Your task to perform on an android device: Open Maps and search for coffee Image 0: 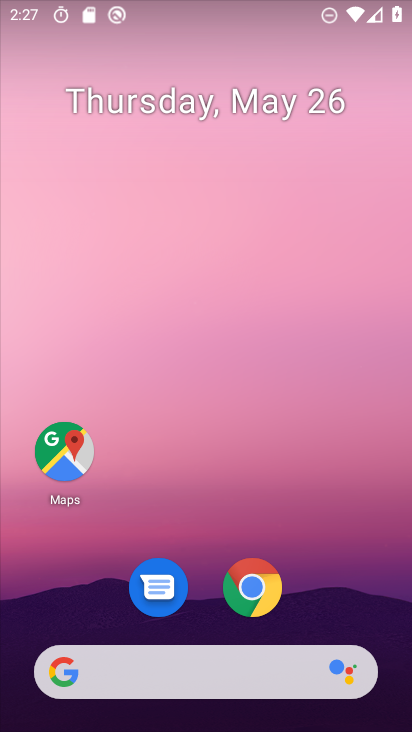
Step 0: click (62, 455)
Your task to perform on an android device: Open Maps and search for coffee Image 1: 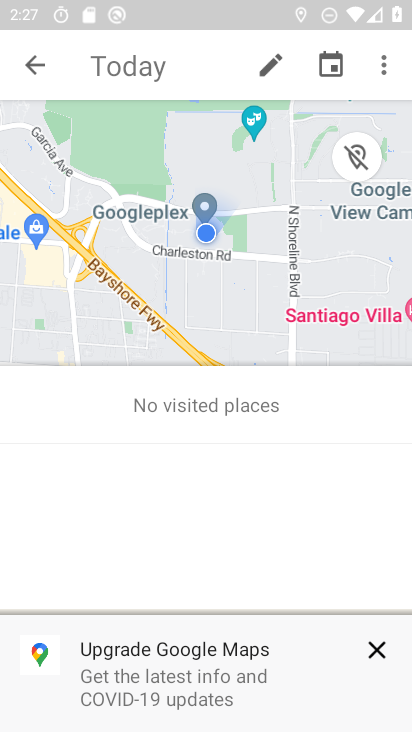
Step 1: click (38, 65)
Your task to perform on an android device: Open Maps and search for coffee Image 2: 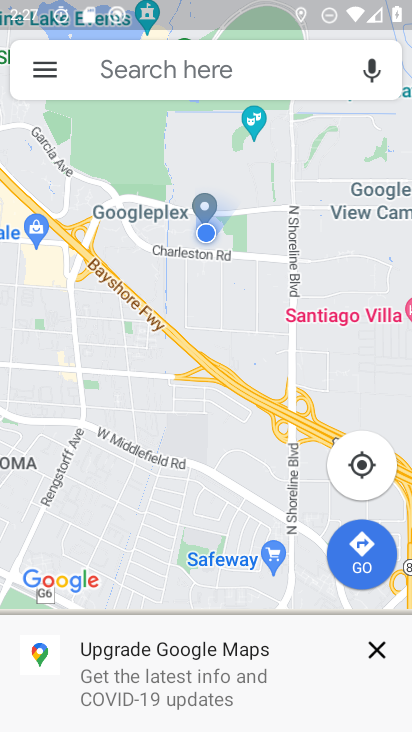
Step 2: click (156, 81)
Your task to perform on an android device: Open Maps and search for coffee Image 3: 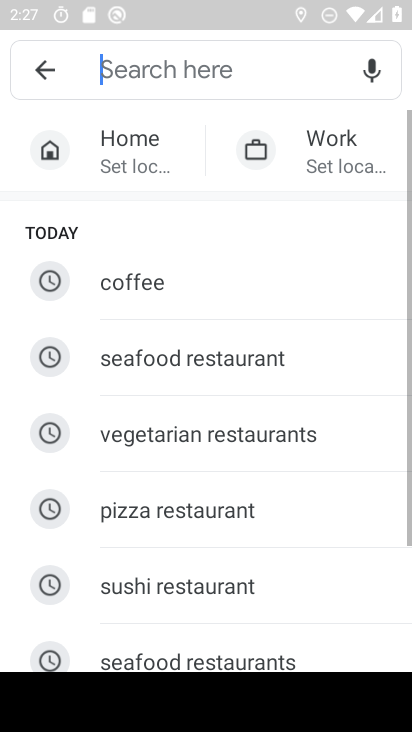
Step 3: click (120, 284)
Your task to perform on an android device: Open Maps and search for coffee Image 4: 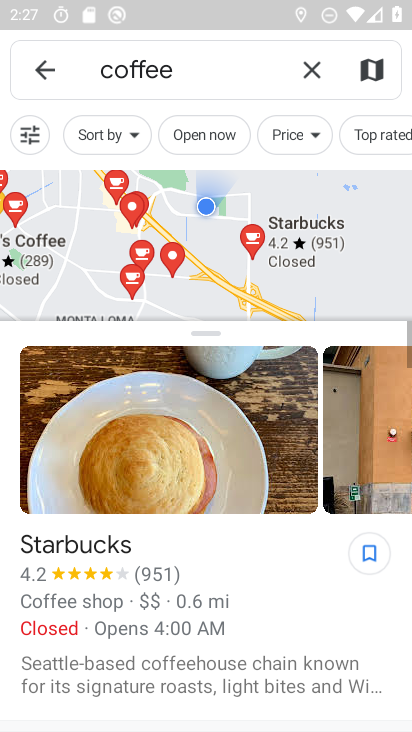
Step 4: task complete